Your task to perform on an android device: Play the latest video from the Wall Street Journal Image 0: 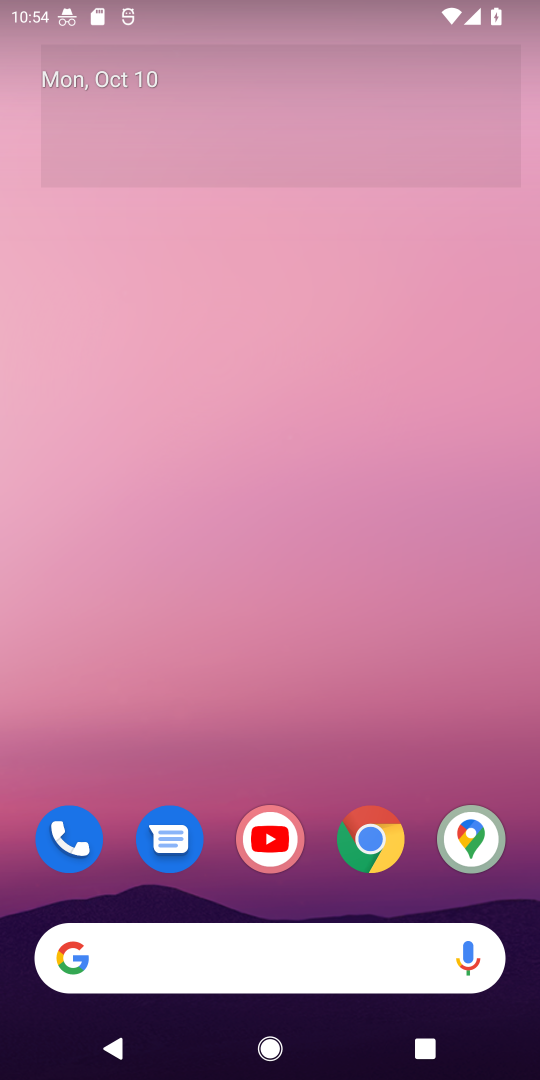
Step 0: drag from (317, 907) to (367, 0)
Your task to perform on an android device: Play the latest video from the Wall Street Journal Image 1: 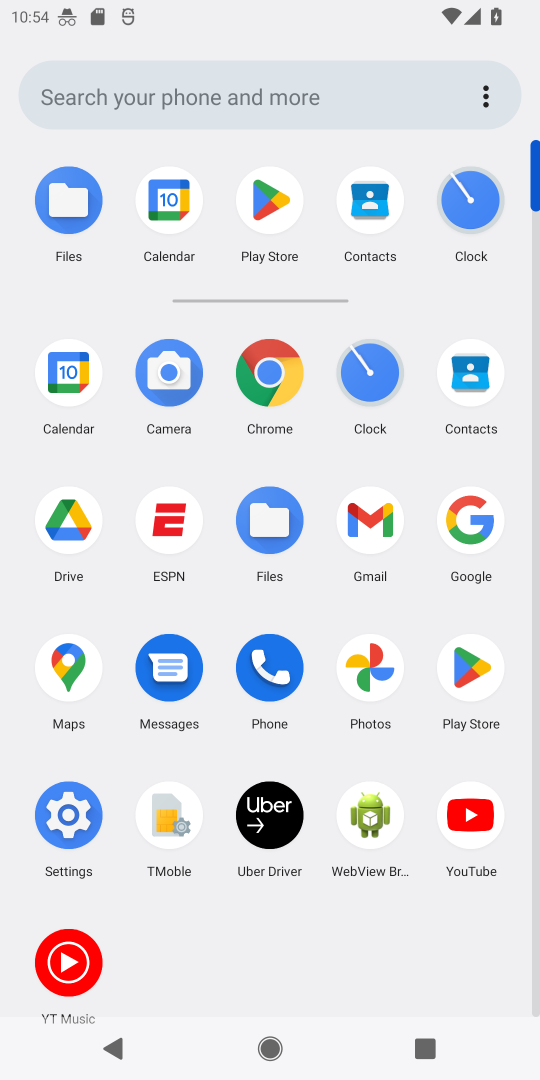
Step 1: click (464, 803)
Your task to perform on an android device: Play the latest video from the Wall Street Journal Image 2: 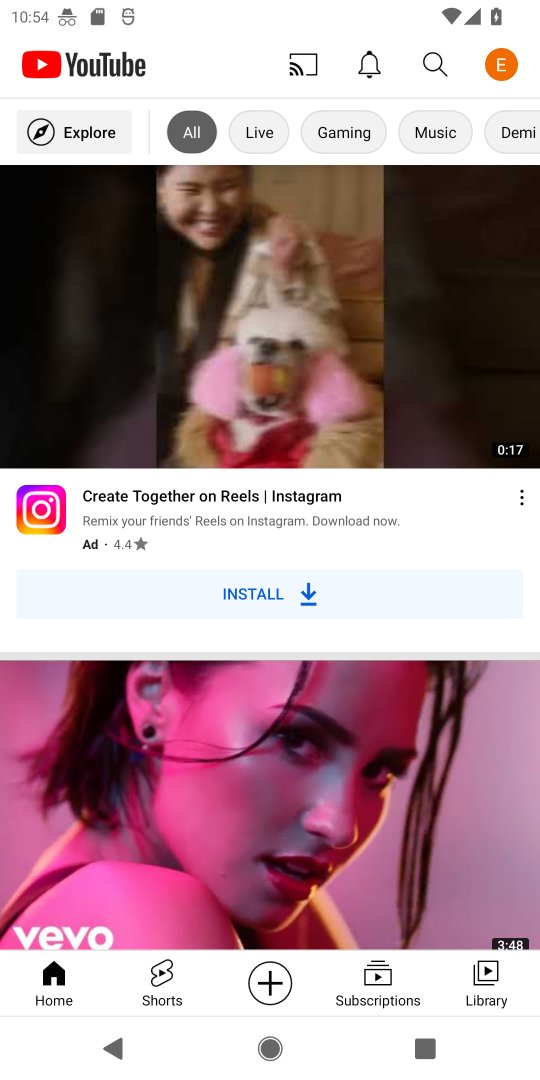
Step 2: click (436, 63)
Your task to perform on an android device: Play the latest video from the Wall Street Journal Image 3: 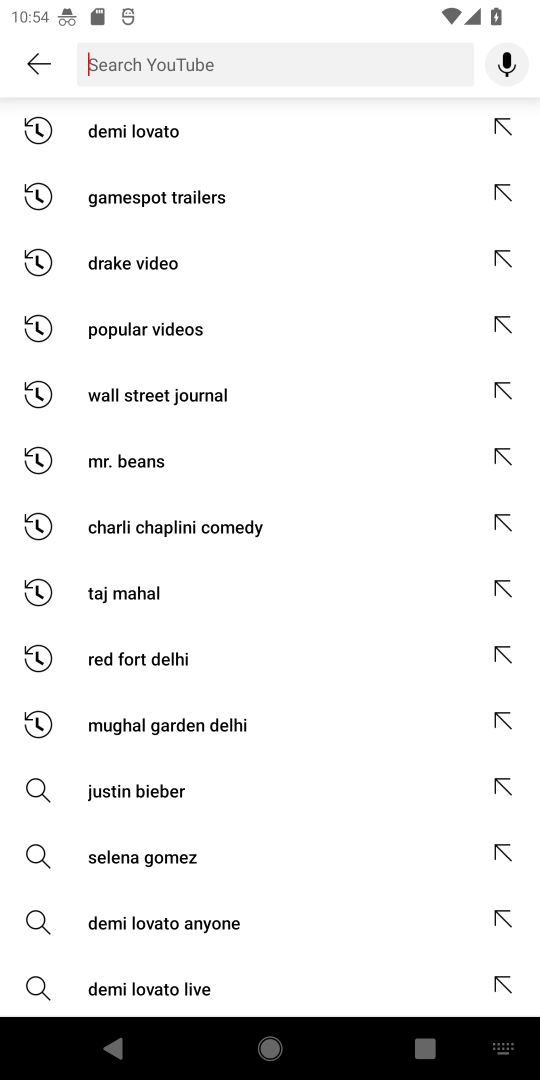
Step 3: type "Wall Street Journal"
Your task to perform on an android device: Play the latest video from the Wall Street Journal Image 4: 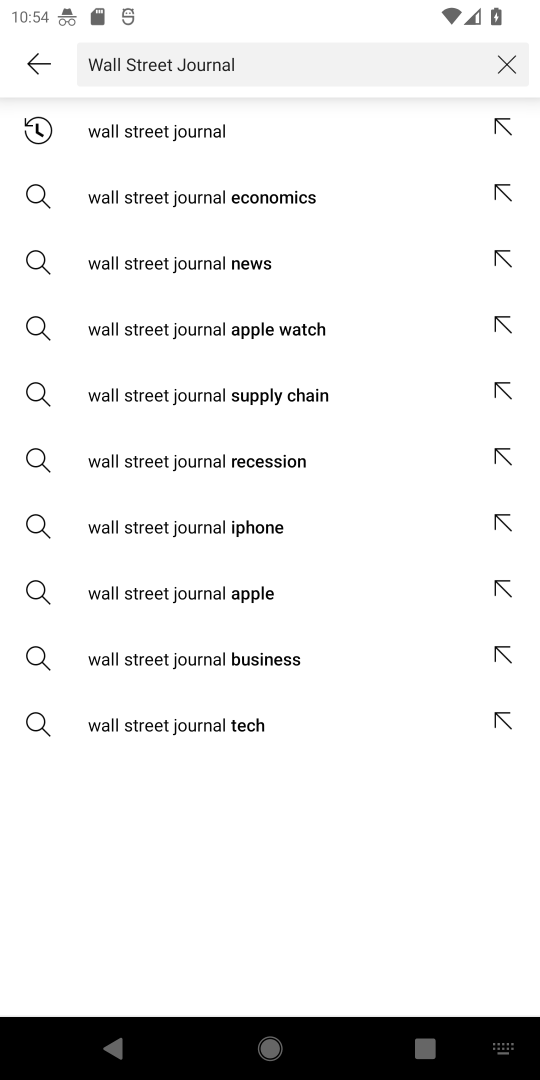
Step 4: press enter
Your task to perform on an android device: Play the latest video from the Wall Street Journal Image 5: 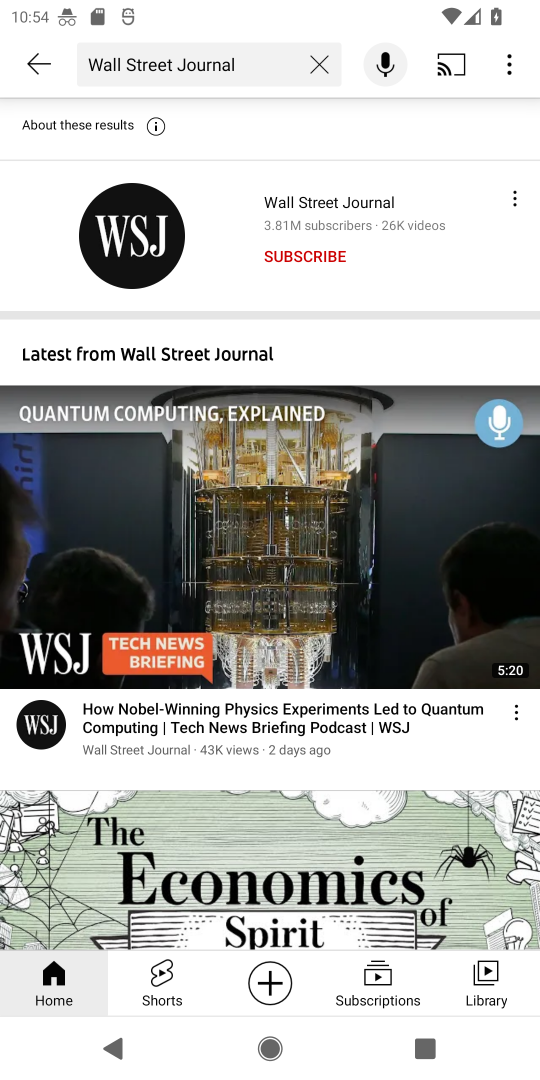
Step 5: click (312, 202)
Your task to perform on an android device: Play the latest video from the Wall Street Journal Image 6: 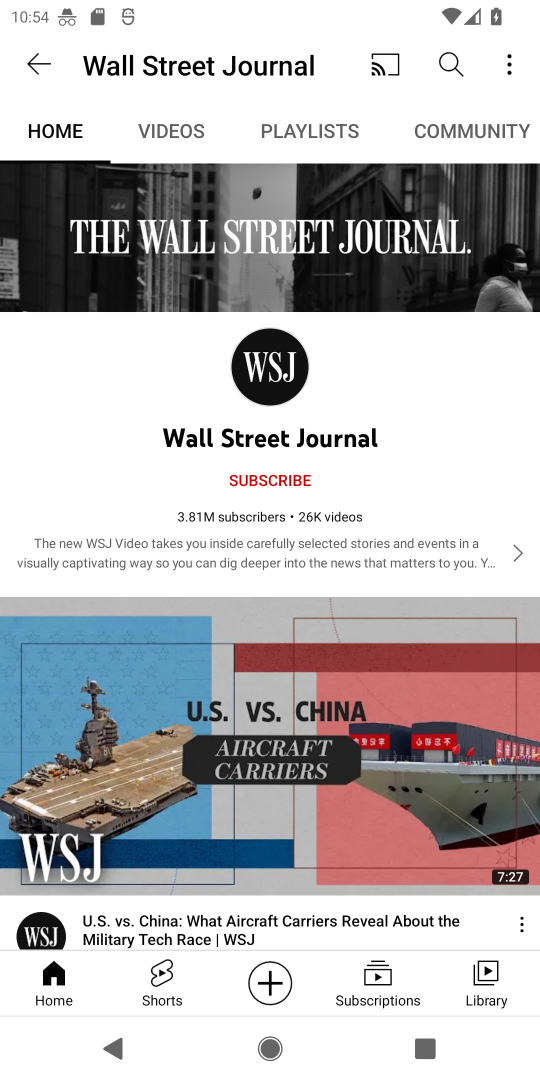
Step 6: click (190, 142)
Your task to perform on an android device: Play the latest video from the Wall Street Journal Image 7: 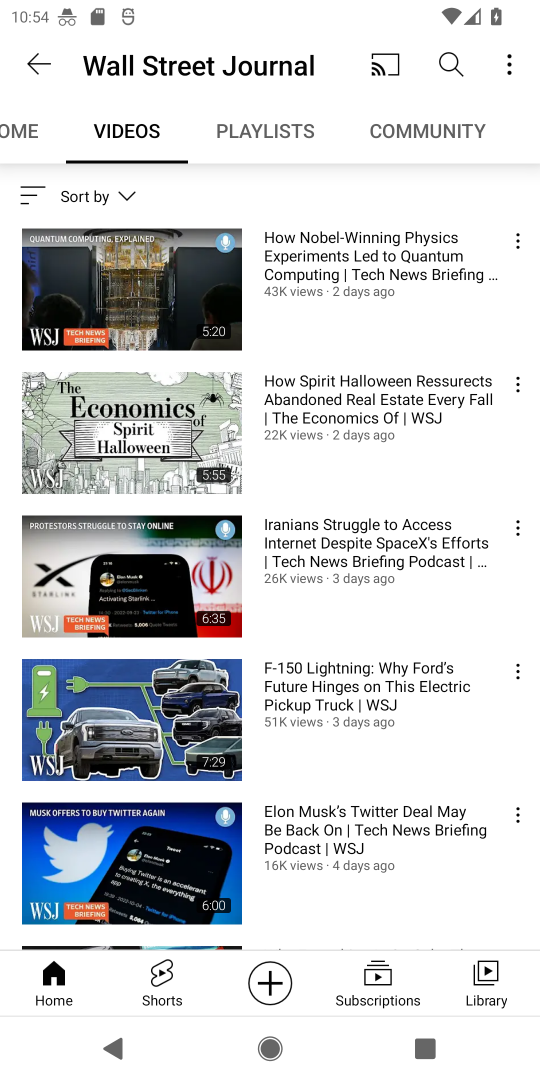
Step 7: click (62, 311)
Your task to perform on an android device: Play the latest video from the Wall Street Journal Image 8: 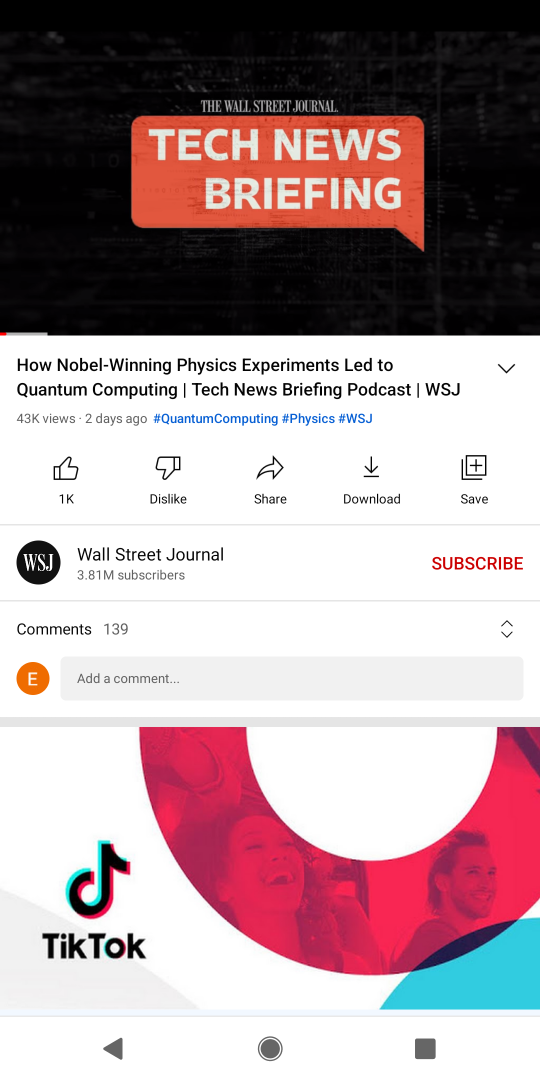
Step 8: task complete